Your task to perform on an android device: Clear all items from cart on costco. Search for asus zenbook on costco, select the first entry, add it to the cart, then select checkout. Image 0: 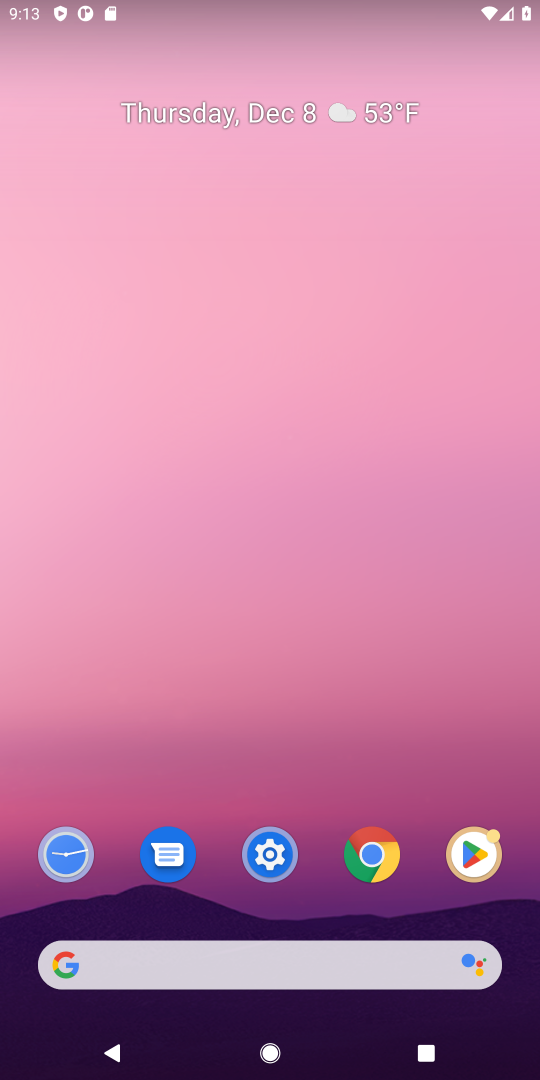
Step 0: press home button
Your task to perform on an android device: Clear all items from cart on costco. Search for asus zenbook on costco, select the first entry, add it to the cart, then select checkout. Image 1: 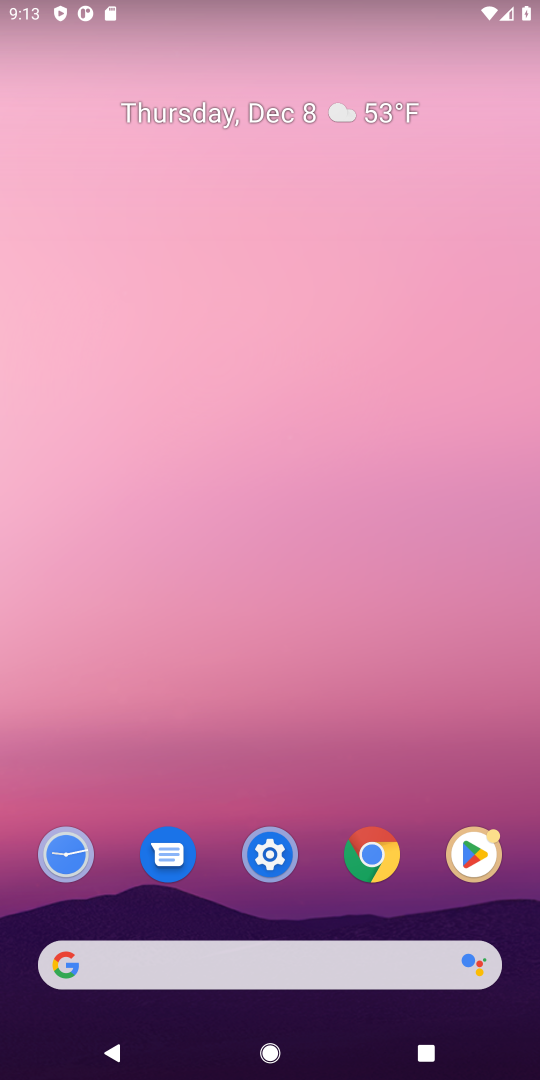
Step 1: click (89, 963)
Your task to perform on an android device: Clear all items from cart on costco. Search for asus zenbook on costco, select the first entry, add it to the cart, then select checkout. Image 2: 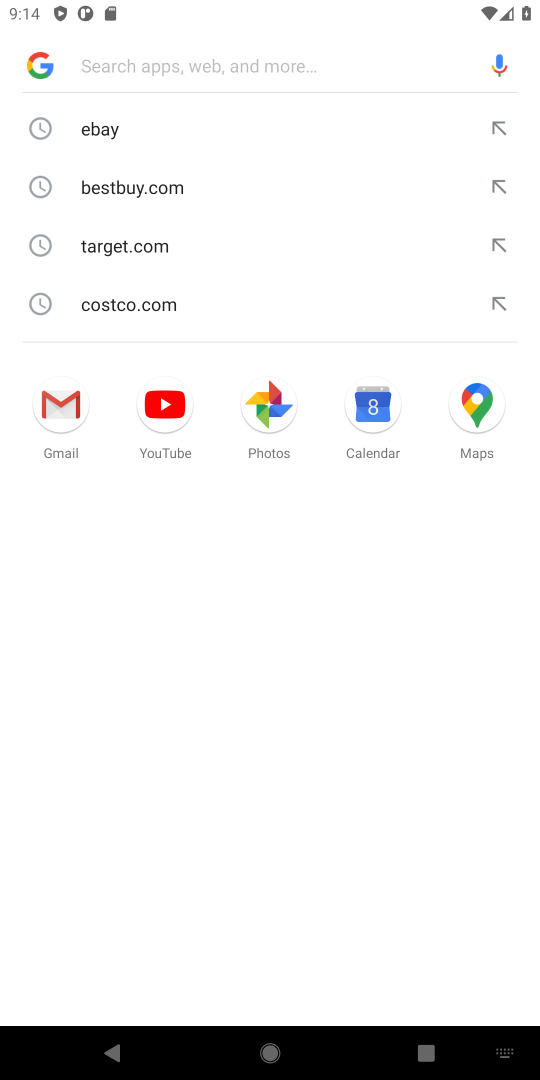
Step 2: type "costco"
Your task to perform on an android device: Clear all items from cart on costco. Search for asus zenbook on costco, select the first entry, add it to the cart, then select checkout. Image 3: 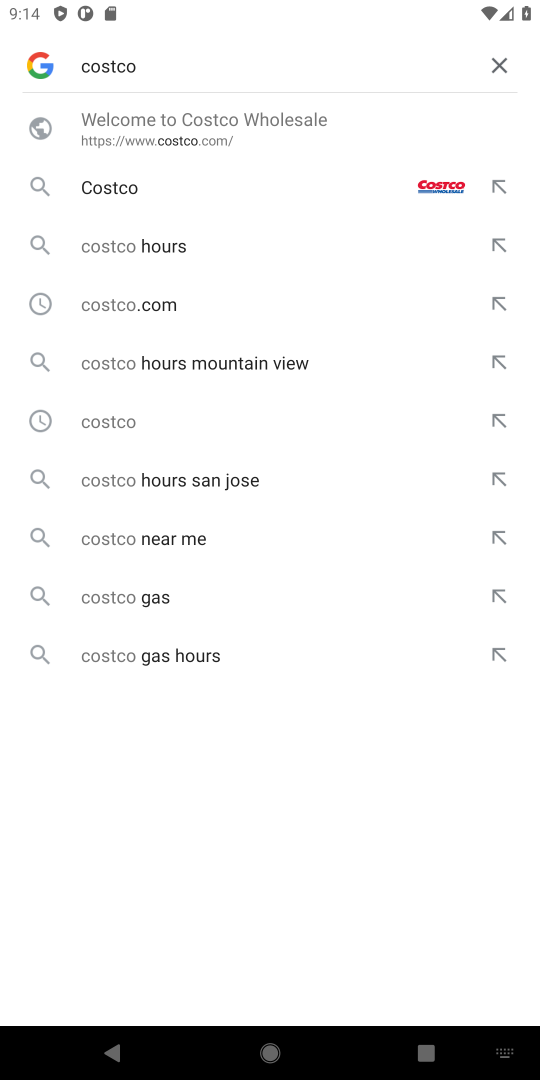
Step 3: press enter
Your task to perform on an android device: Clear all items from cart on costco. Search for asus zenbook on costco, select the first entry, add it to the cart, then select checkout. Image 4: 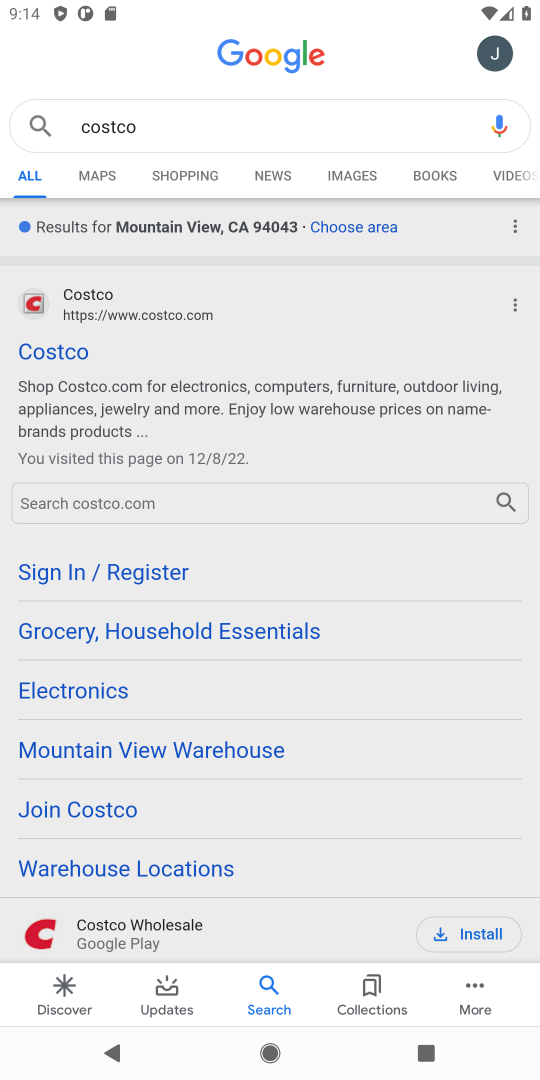
Step 4: click (41, 351)
Your task to perform on an android device: Clear all items from cart on costco. Search for asus zenbook on costco, select the first entry, add it to the cart, then select checkout. Image 5: 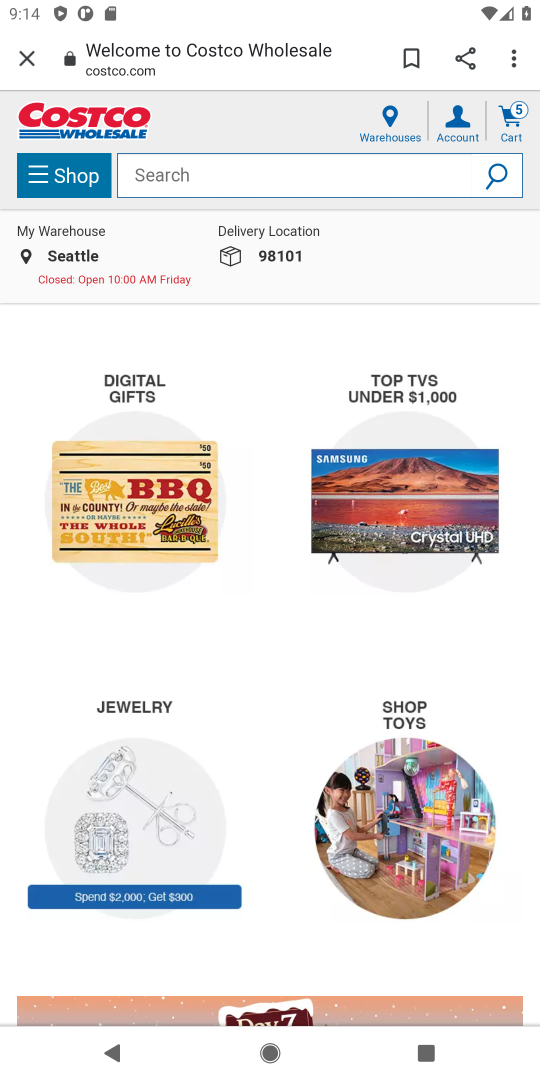
Step 5: click (509, 114)
Your task to perform on an android device: Clear all items from cart on costco. Search for asus zenbook on costco, select the first entry, add it to the cart, then select checkout. Image 6: 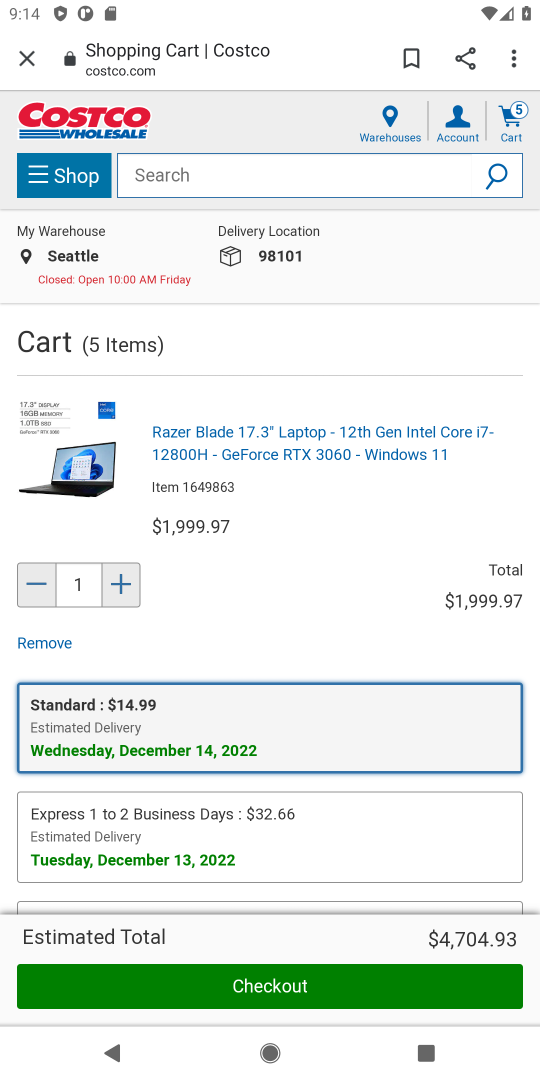
Step 6: click (36, 640)
Your task to perform on an android device: Clear all items from cart on costco. Search for asus zenbook on costco, select the first entry, add it to the cart, then select checkout. Image 7: 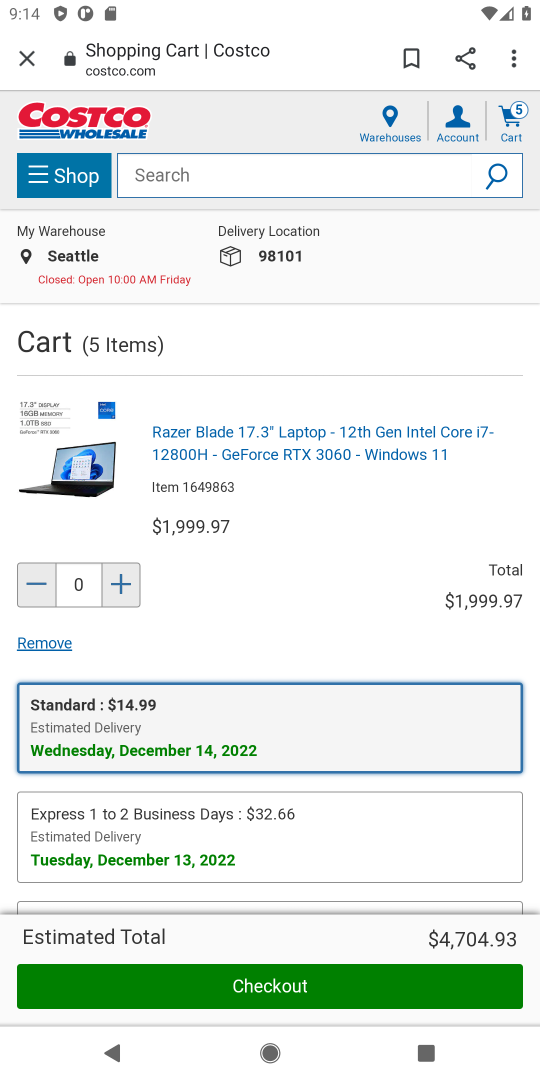
Step 7: drag from (304, 672) to (362, 280)
Your task to perform on an android device: Clear all items from cart on costco. Search for asus zenbook on costco, select the first entry, add it to the cart, then select checkout. Image 8: 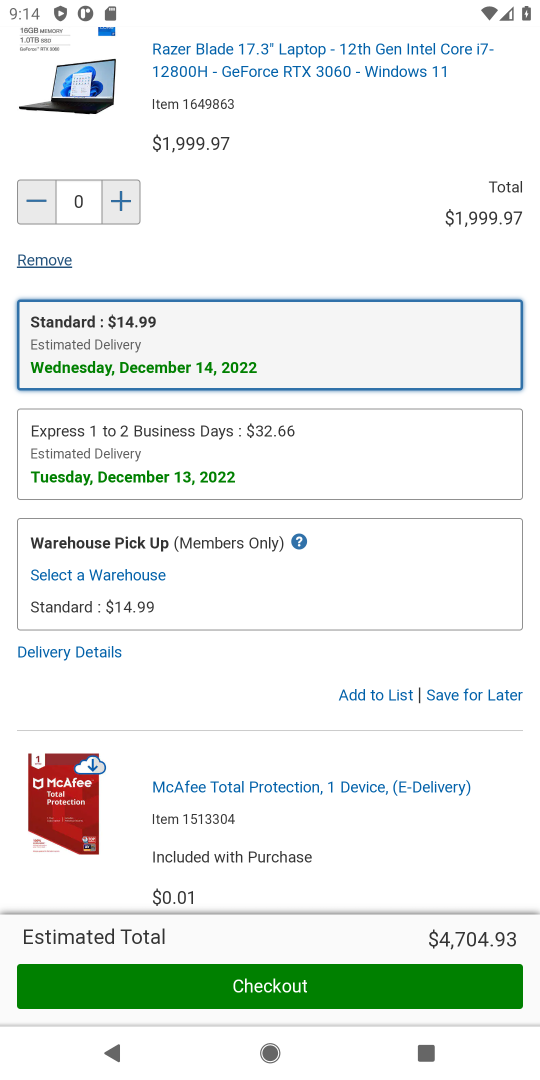
Step 8: drag from (235, 788) to (330, 248)
Your task to perform on an android device: Clear all items from cart on costco. Search for asus zenbook on costco, select the first entry, add it to the cart, then select checkout. Image 9: 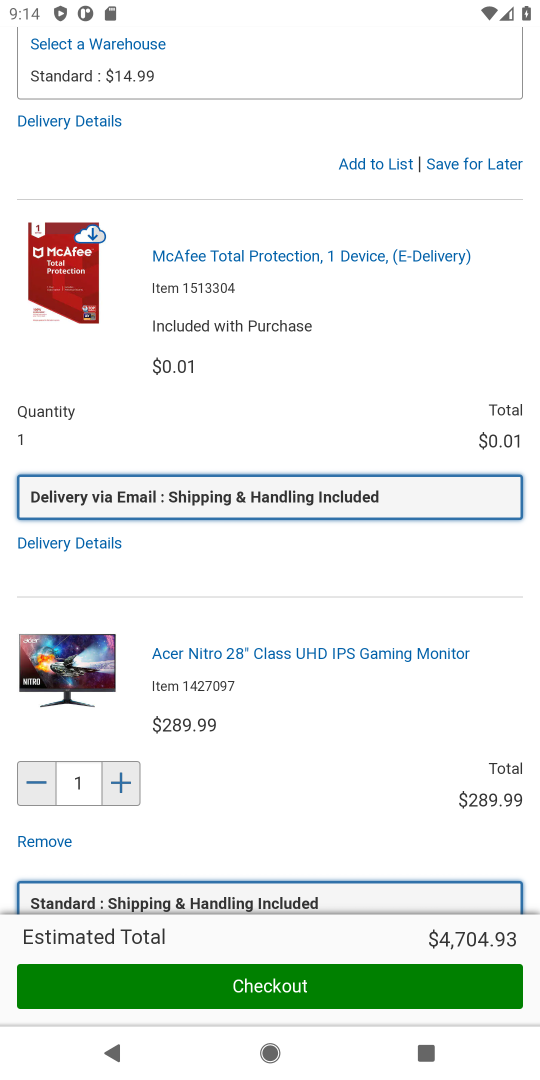
Step 9: drag from (248, 815) to (322, 372)
Your task to perform on an android device: Clear all items from cart on costco. Search for asus zenbook on costco, select the first entry, add it to the cart, then select checkout. Image 10: 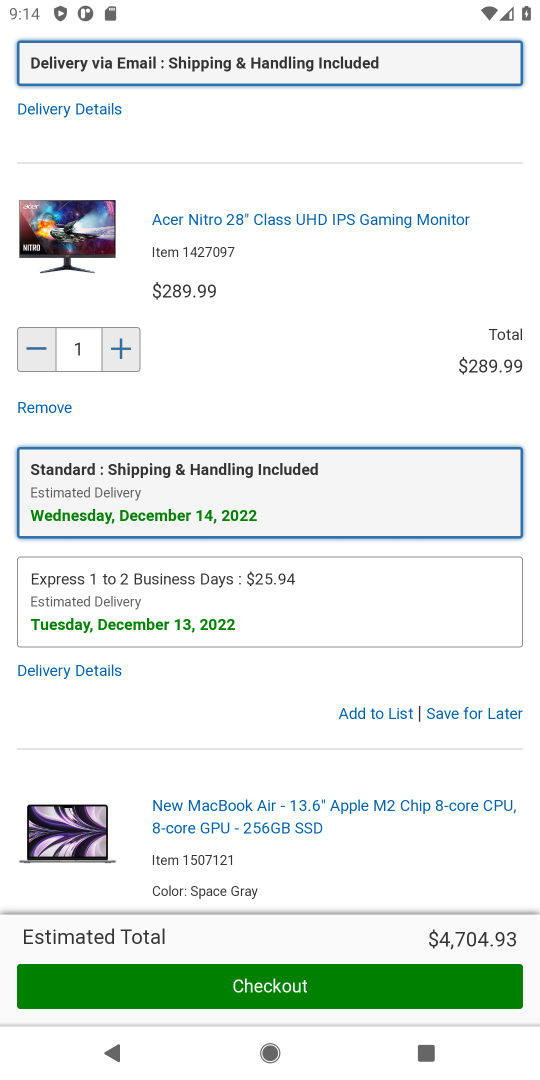
Step 10: click (20, 399)
Your task to perform on an android device: Clear all items from cart on costco. Search for asus zenbook on costco, select the first entry, add it to the cart, then select checkout. Image 11: 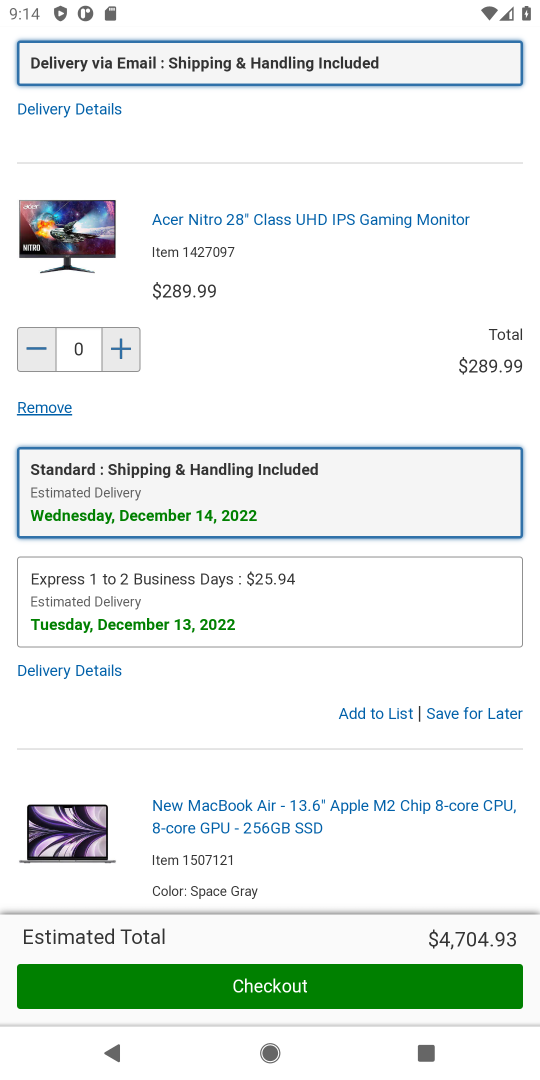
Step 11: drag from (216, 738) to (215, 181)
Your task to perform on an android device: Clear all items from cart on costco. Search for asus zenbook on costco, select the first entry, add it to the cart, then select checkout. Image 12: 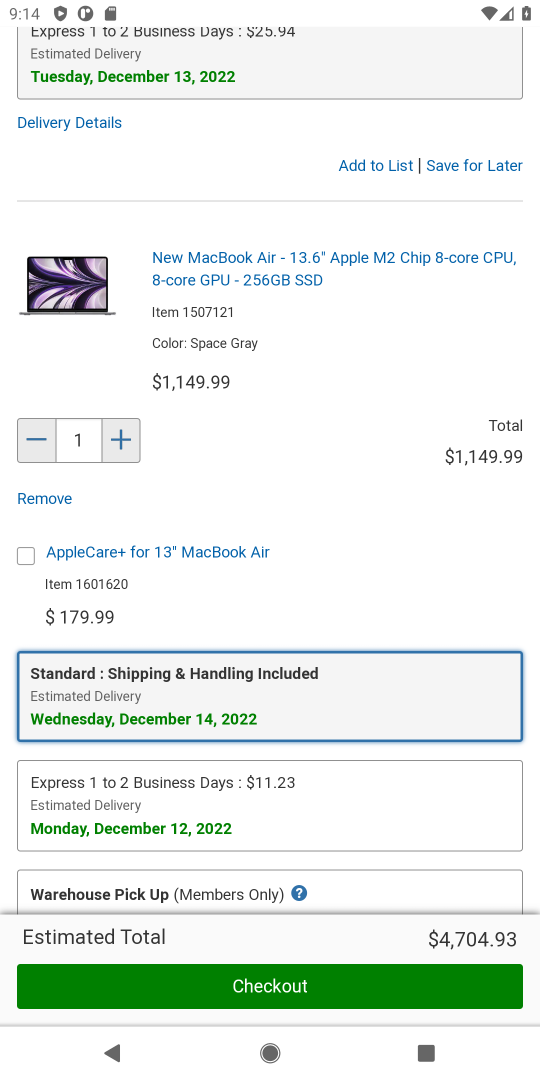
Step 12: click (33, 500)
Your task to perform on an android device: Clear all items from cart on costco. Search for asus zenbook on costco, select the first entry, add it to the cart, then select checkout. Image 13: 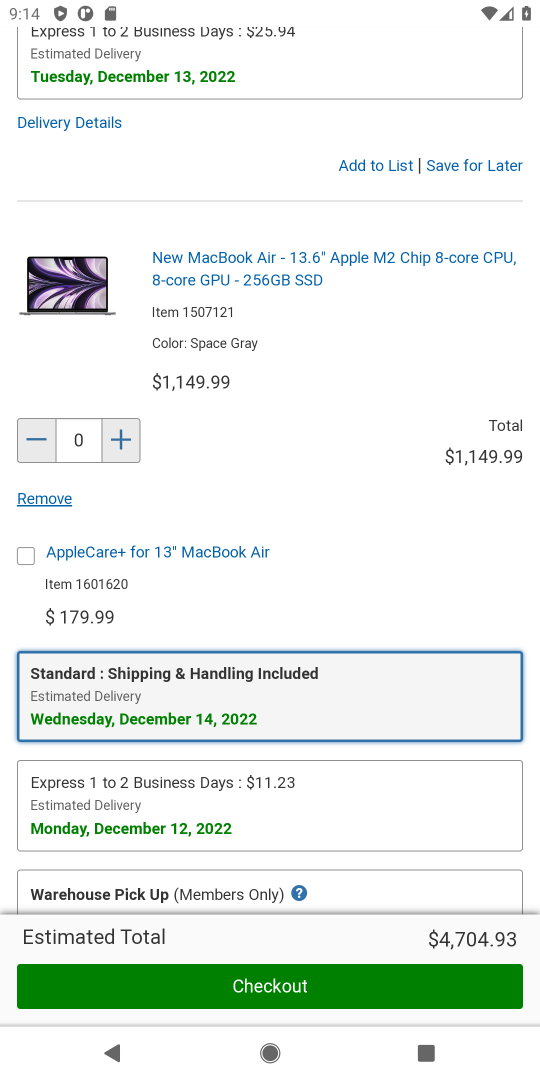
Step 13: drag from (197, 751) to (254, 240)
Your task to perform on an android device: Clear all items from cart on costco. Search for asus zenbook on costco, select the first entry, add it to the cart, then select checkout. Image 14: 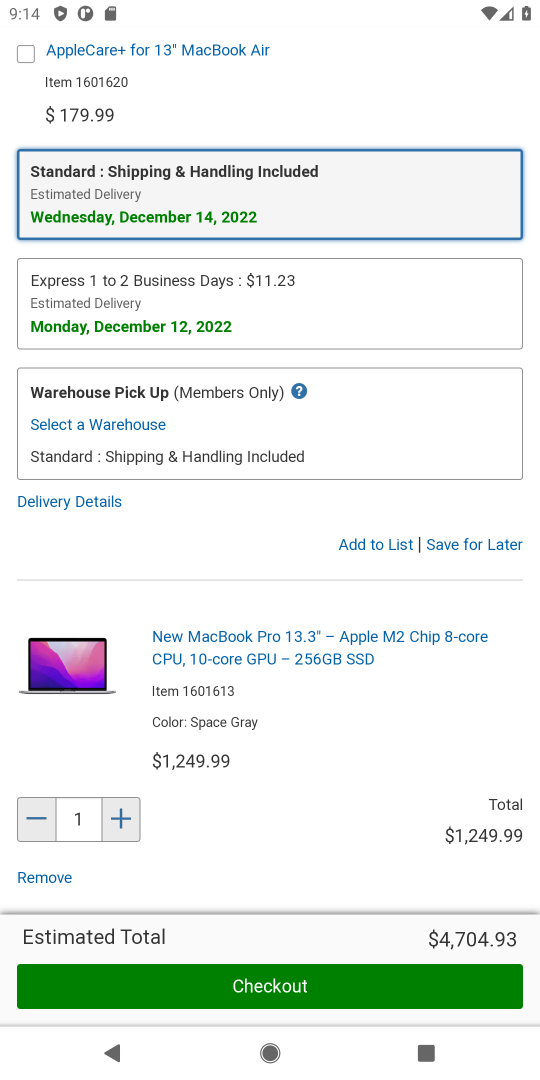
Step 14: drag from (187, 807) to (249, 268)
Your task to perform on an android device: Clear all items from cart on costco. Search for asus zenbook on costco, select the first entry, add it to the cart, then select checkout. Image 15: 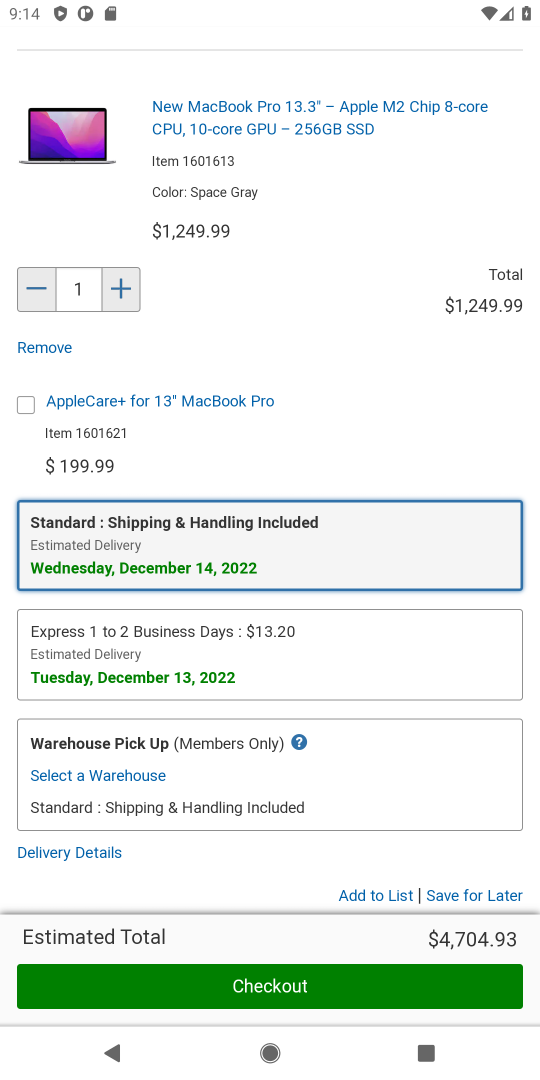
Step 15: click (57, 346)
Your task to perform on an android device: Clear all items from cart on costco. Search for asus zenbook on costco, select the first entry, add it to the cart, then select checkout. Image 16: 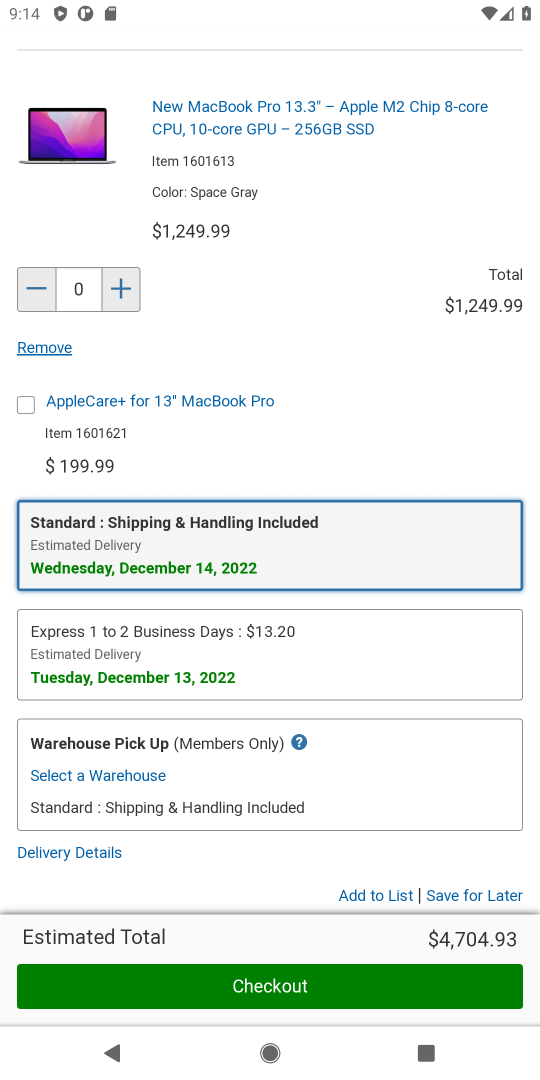
Step 16: drag from (178, 747) to (217, 194)
Your task to perform on an android device: Clear all items from cart on costco. Search for asus zenbook on costco, select the first entry, add it to the cart, then select checkout. Image 17: 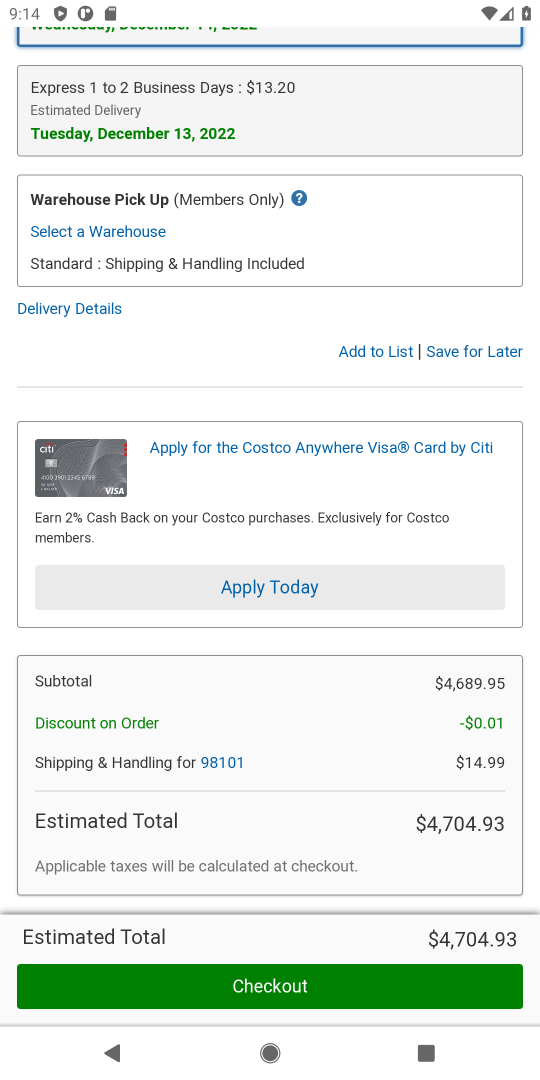
Step 17: drag from (184, 787) to (248, 218)
Your task to perform on an android device: Clear all items from cart on costco. Search for asus zenbook on costco, select the first entry, add it to the cart, then select checkout. Image 18: 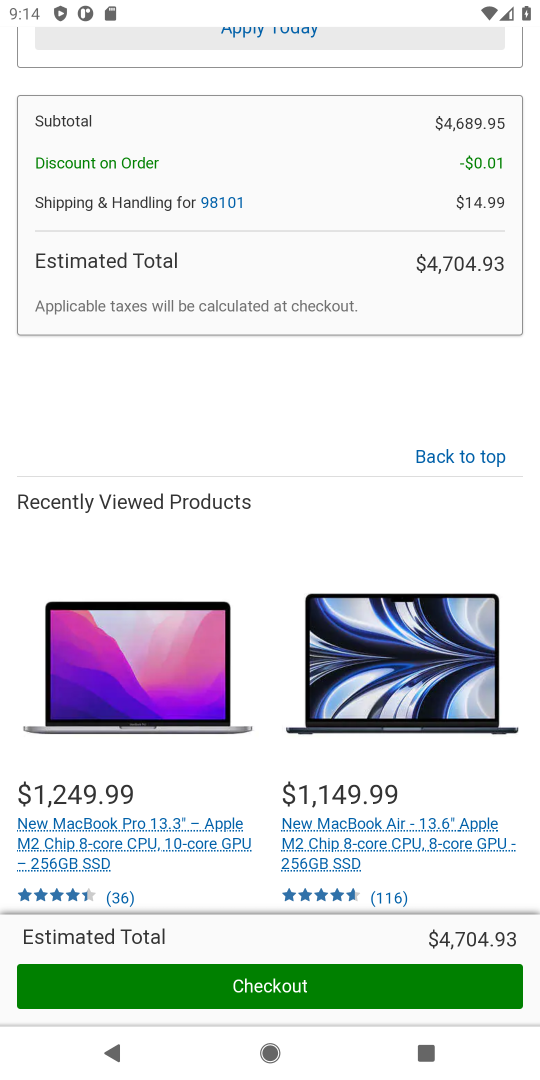
Step 18: drag from (382, 226) to (312, 853)
Your task to perform on an android device: Clear all items from cart on costco. Search for asus zenbook on costco, select the first entry, add it to the cart, then select checkout. Image 19: 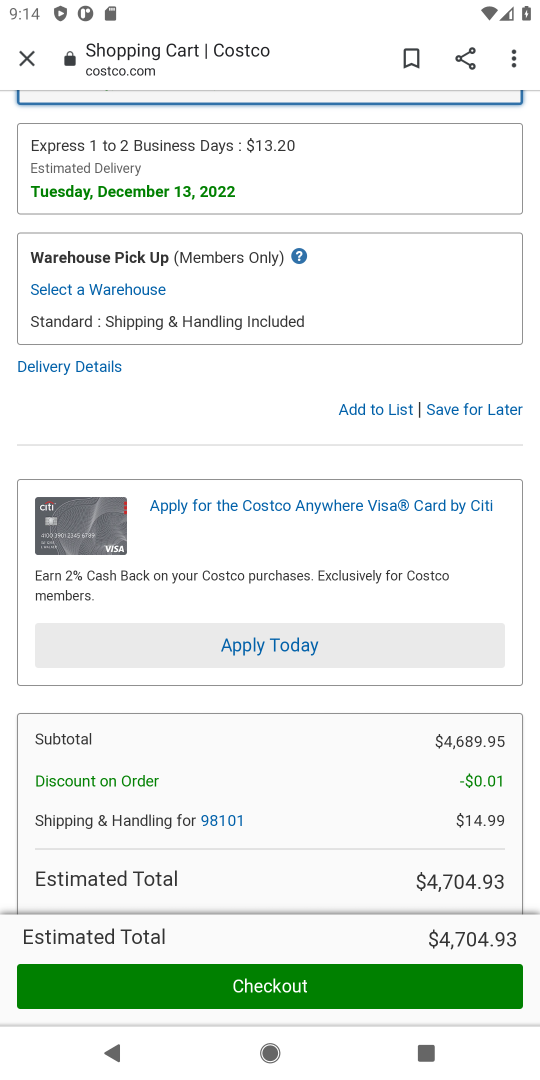
Step 19: press back button
Your task to perform on an android device: Clear all items from cart on costco. Search for asus zenbook on costco, select the first entry, add it to the cart, then select checkout. Image 20: 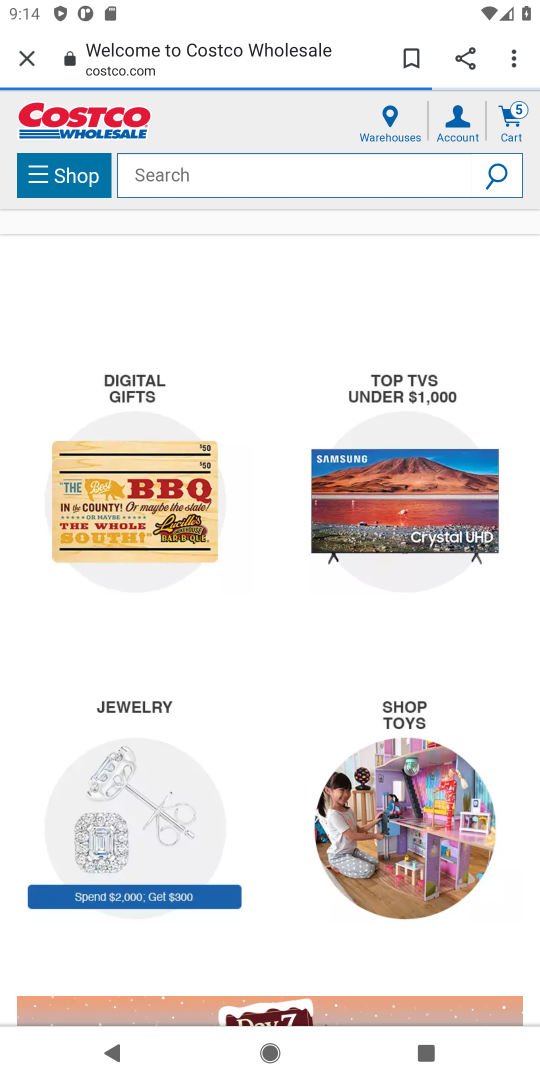
Step 20: click (196, 170)
Your task to perform on an android device: Clear all items from cart on costco. Search for asus zenbook on costco, select the first entry, add it to the cart, then select checkout. Image 21: 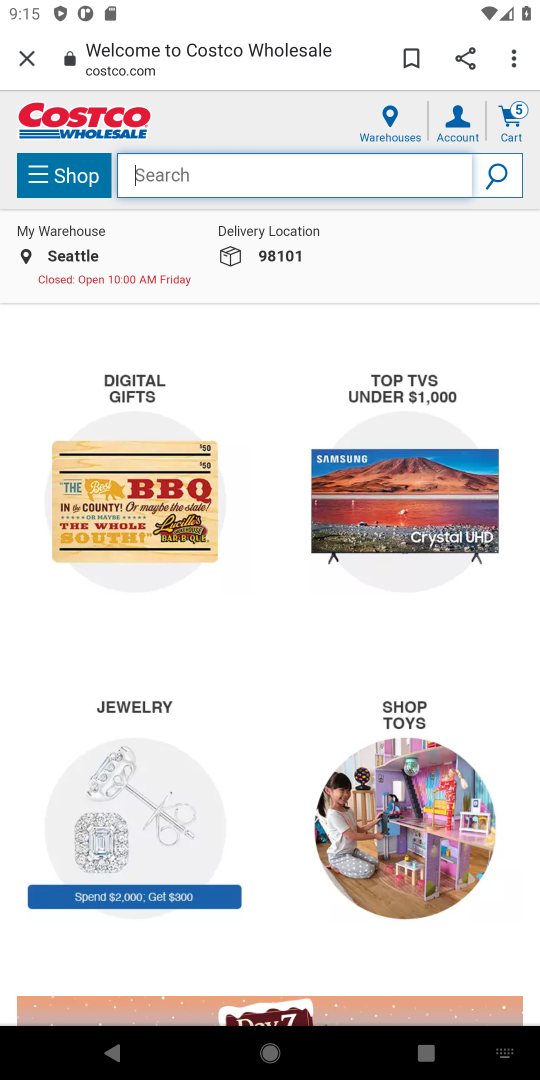
Step 21: press enter
Your task to perform on an android device: Clear all items from cart on costco. Search for asus zenbook on costco, select the first entry, add it to the cart, then select checkout. Image 22: 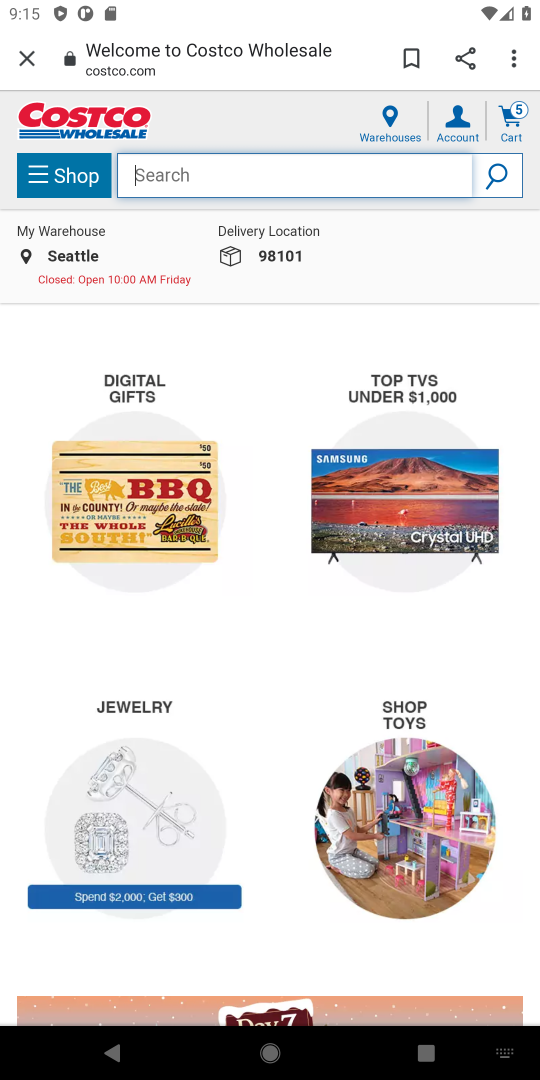
Step 22: type "asus zenbook"
Your task to perform on an android device: Clear all items from cart on costco. Search for asus zenbook on costco, select the first entry, add it to the cart, then select checkout. Image 23: 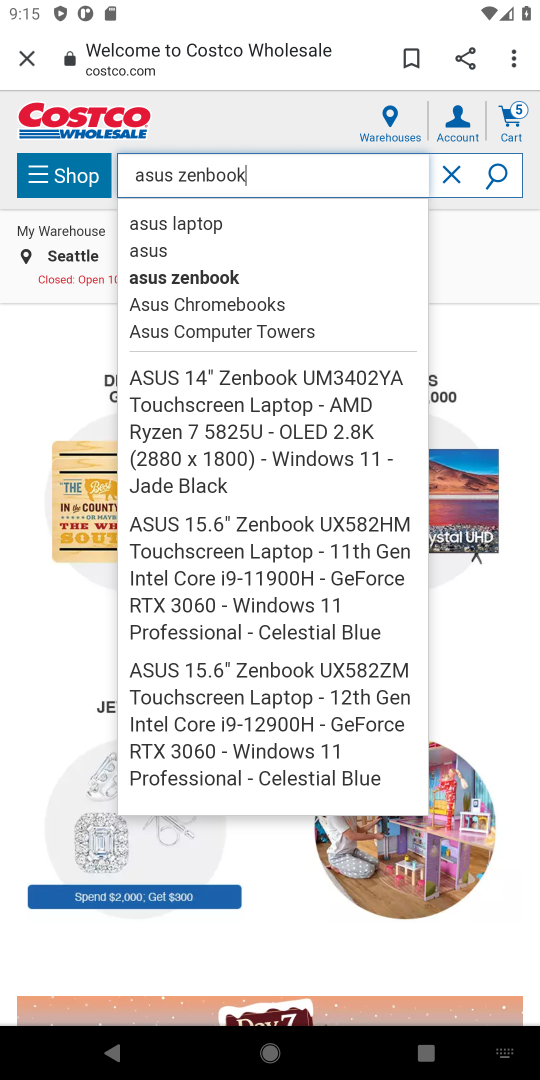
Step 23: press enter
Your task to perform on an android device: Clear all items from cart on costco. Search for asus zenbook on costco, select the first entry, add it to the cart, then select checkout. Image 24: 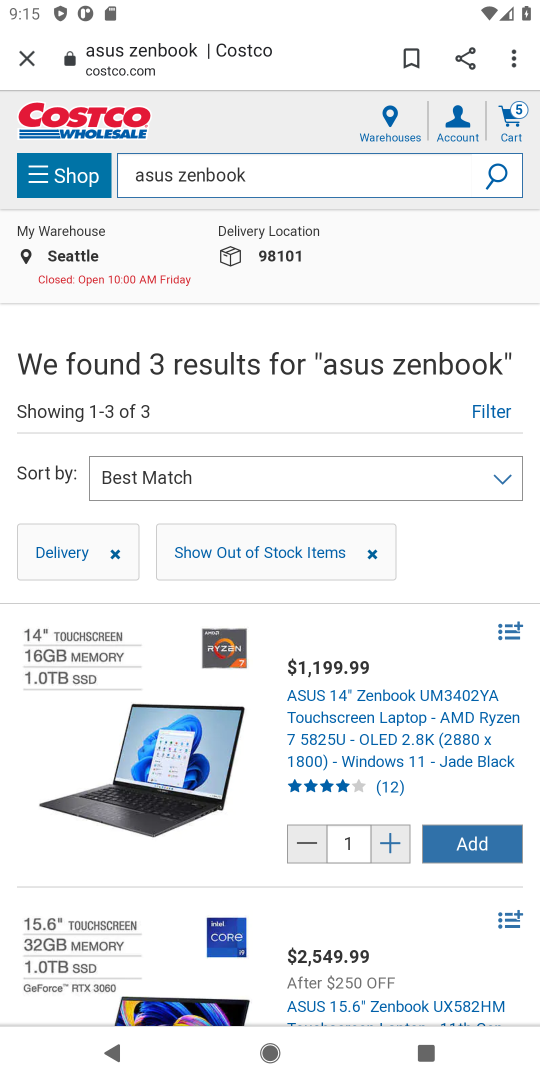
Step 24: click (460, 848)
Your task to perform on an android device: Clear all items from cart on costco. Search for asus zenbook on costco, select the first entry, add it to the cart, then select checkout. Image 25: 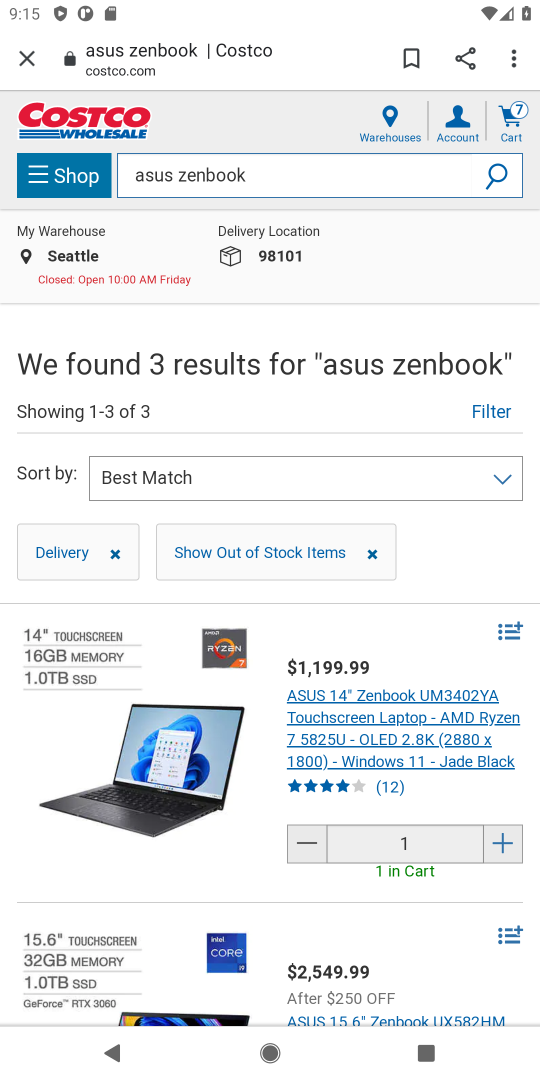
Step 25: task complete